Your task to perform on an android device: visit the assistant section in the google photos Image 0: 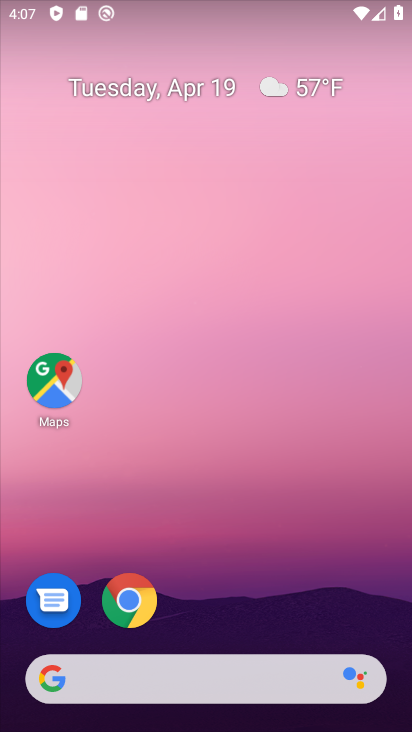
Step 0: drag from (320, 600) to (276, 14)
Your task to perform on an android device: visit the assistant section in the google photos Image 1: 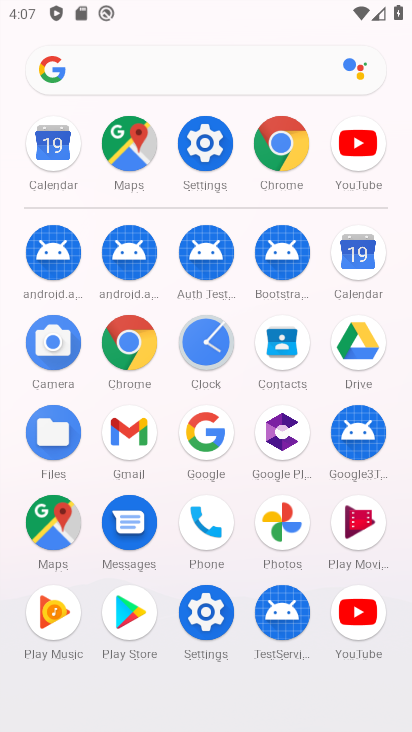
Step 1: click (265, 513)
Your task to perform on an android device: visit the assistant section in the google photos Image 2: 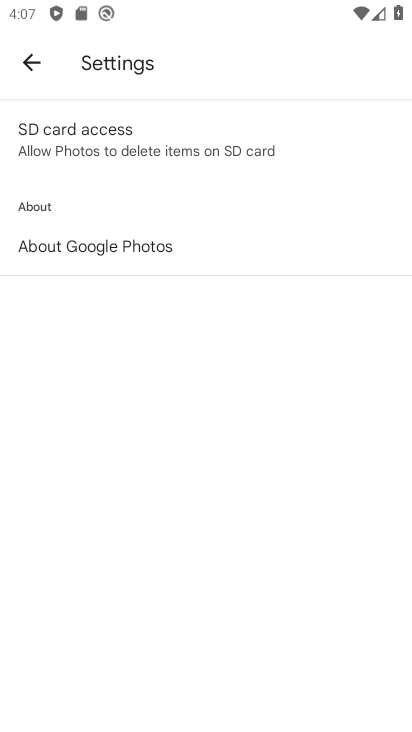
Step 2: press back button
Your task to perform on an android device: visit the assistant section in the google photos Image 3: 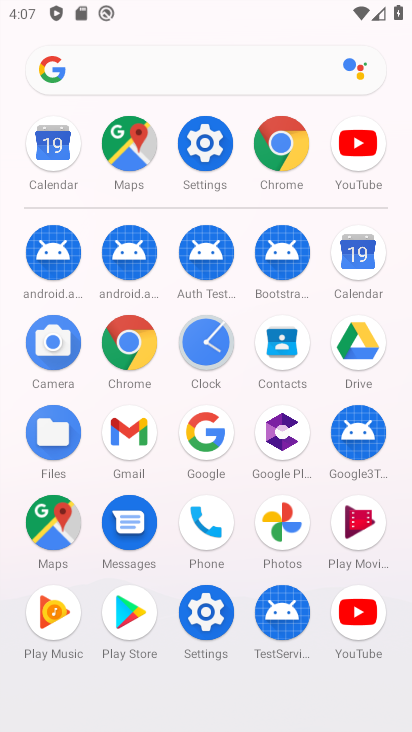
Step 3: click (287, 512)
Your task to perform on an android device: visit the assistant section in the google photos Image 4: 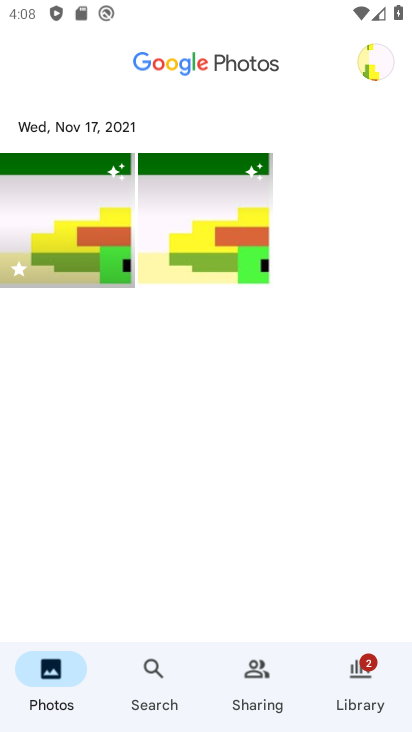
Step 4: click (359, 682)
Your task to perform on an android device: visit the assistant section in the google photos Image 5: 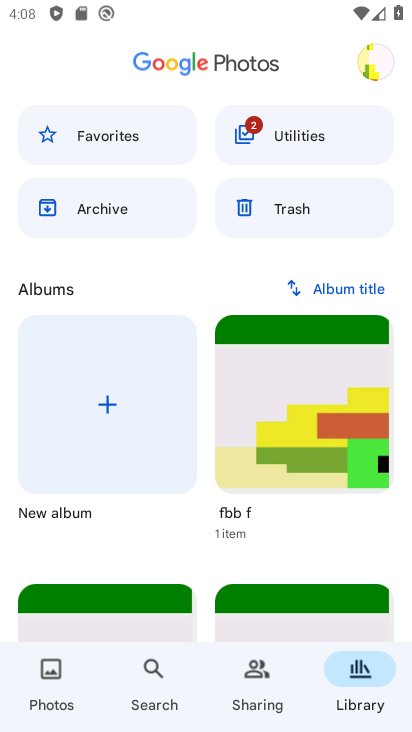
Step 5: task complete